Your task to perform on an android device: Open network settings Image 0: 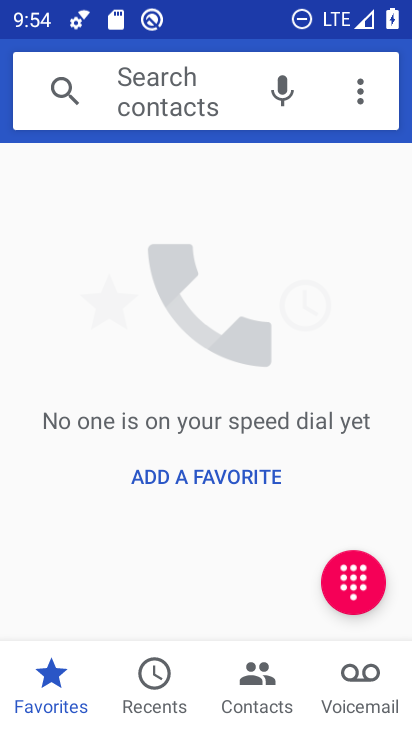
Step 0: press home button
Your task to perform on an android device: Open network settings Image 1: 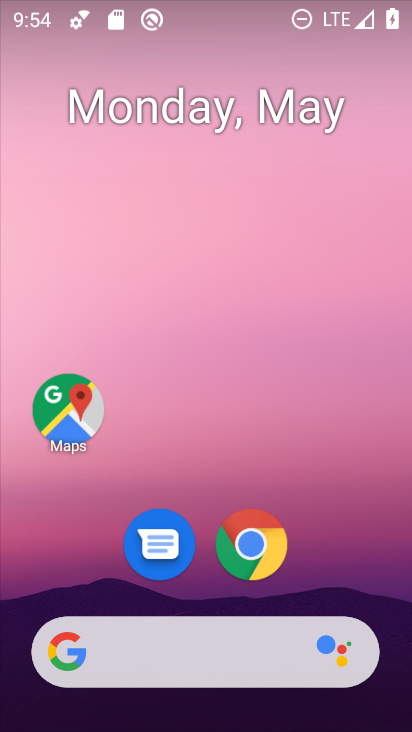
Step 1: drag from (396, 574) to (317, 144)
Your task to perform on an android device: Open network settings Image 2: 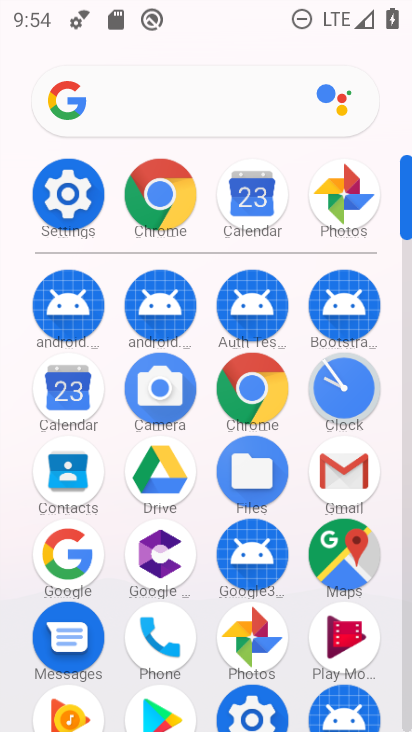
Step 2: click (69, 188)
Your task to perform on an android device: Open network settings Image 3: 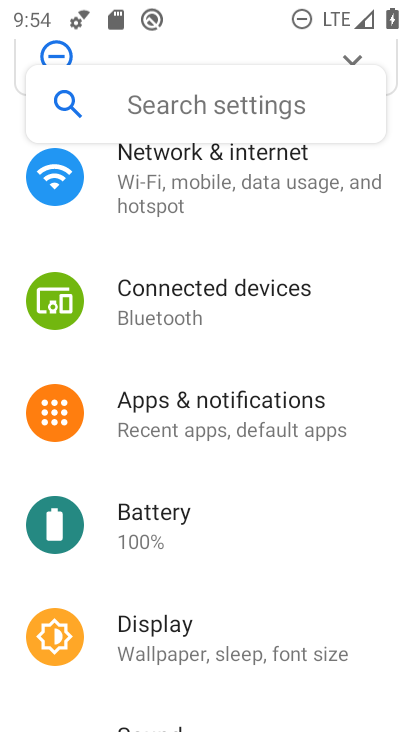
Step 3: drag from (317, 252) to (360, 589)
Your task to perform on an android device: Open network settings Image 4: 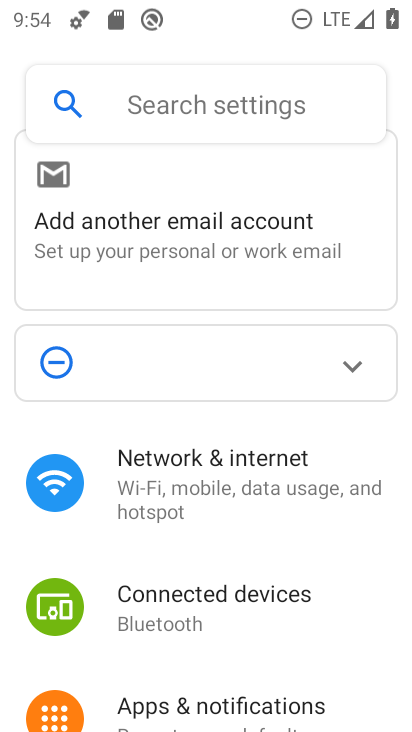
Step 4: click (211, 478)
Your task to perform on an android device: Open network settings Image 5: 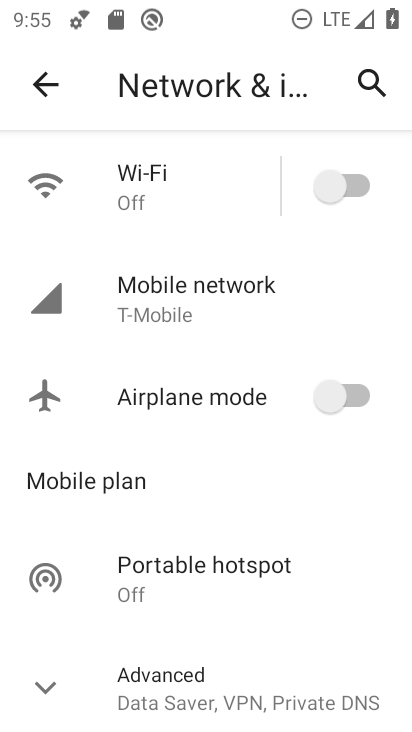
Step 5: task complete